Your task to perform on an android device: Open internet settings Image 0: 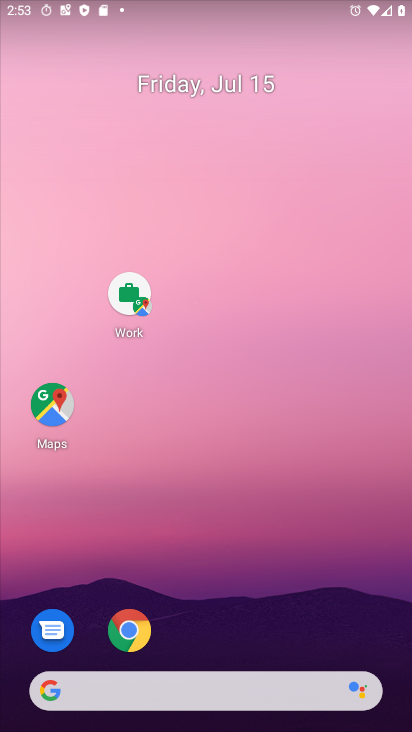
Step 0: drag from (207, 629) to (220, 229)
Your task to perform on an android device: Open internet settings Image 1: 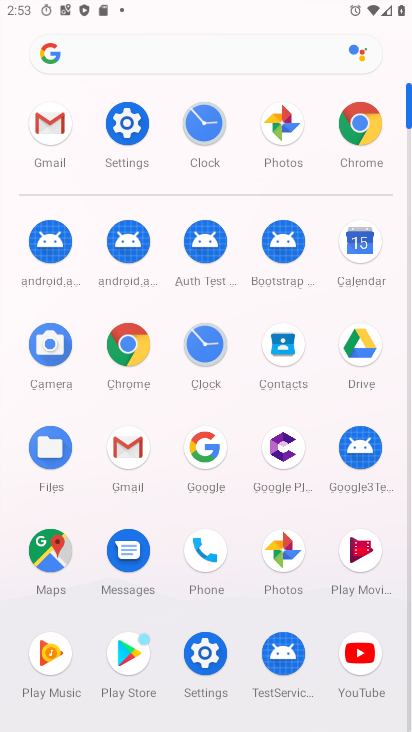
Step 1: click (124, 128)
Your task to perform on an android device: Open internet settings Image 2: 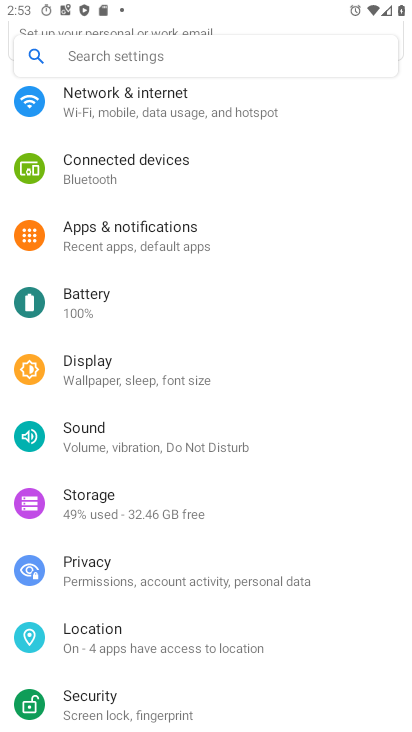
Step 2: click (136, 111)
Your task to perform on an android device: Open internet settings Image 3: 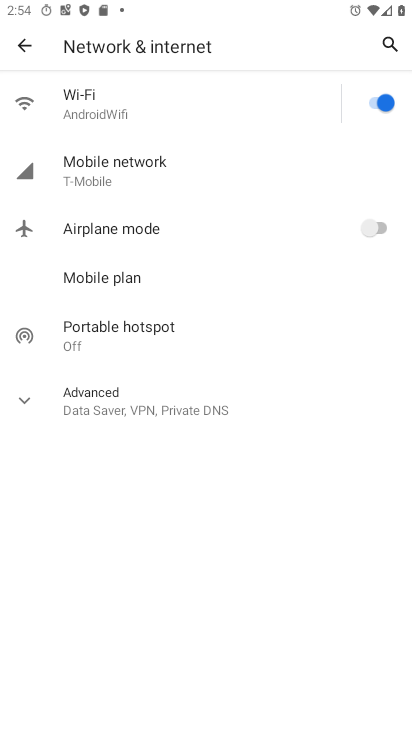
Step 3: task complete